Your task to perform on an android device: Show the shopping cart on amazon.com. Image 0: 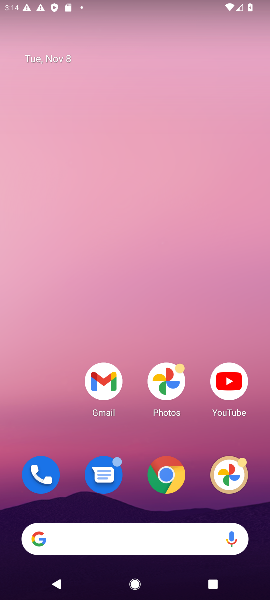
Step 0: drag from (103, 541) to (137, 260)
Your task to perform on an android device: Show the shopping cart on amazon.com. Image 1: 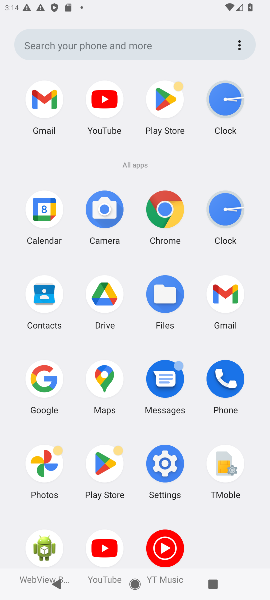
Step 1: click (44, 370)
Your task to perform on an android device: Show the shopping cart on amazon.com. Image 2: 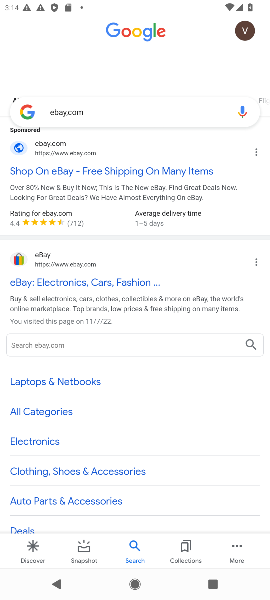
Step 2: click (97, 109)
Your task to perform on an android device: Show the shopping cart on amazon.com. Image 3: 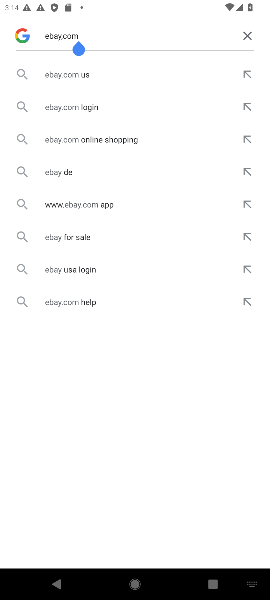
Step 3: click (253, 30)
Your task to perform on an android device: Show the shopping cart on amazon.com. Image 4: 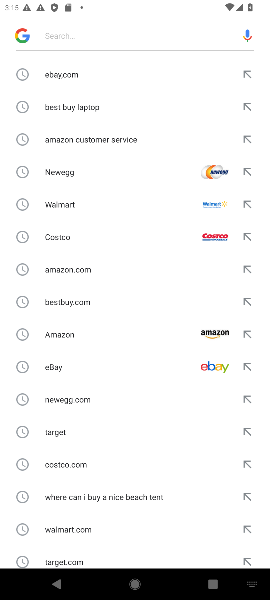
Step 4: click (102, 32)
Your task to perform on an android device: Show the shopping cart on amazon.com. Image 5: 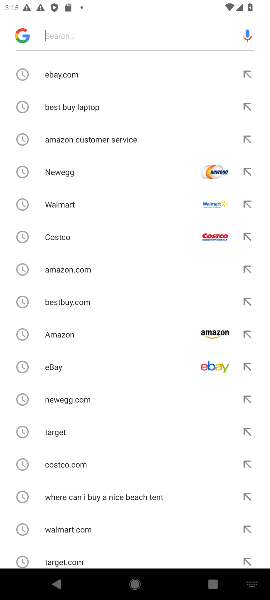
Step 5: type "amazon "
Your task to perform on an android device: Show the shopping cart on amazon.com. Image 6: 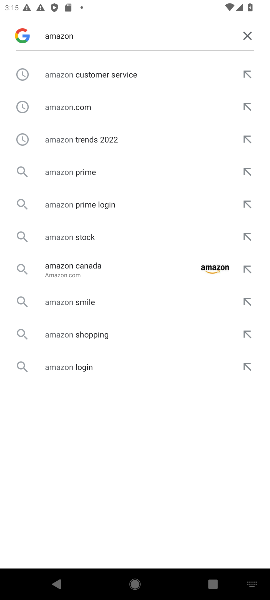
Step 6: click (113, 76)
Your task to perform on an android device: Show the shopping cart on amazon.com. Image 7: 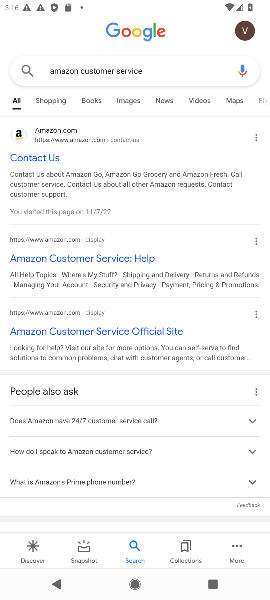
Step 7: click (18, 130)
Your task to perform on an android device: Show the shopping cart on amazon.com. Image 8: 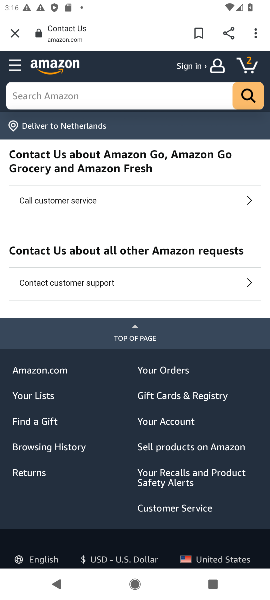
Step 8: click (247, 58)
Your task to perform on an android device: Show the shopping cart on amazon.com. Image 9: 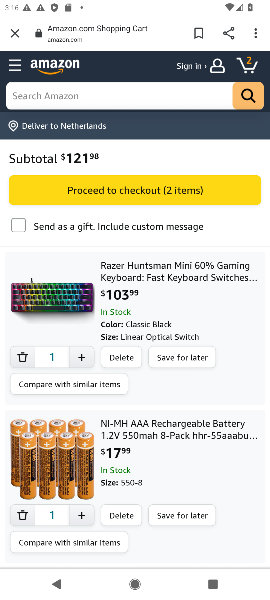
Step 9: task complete